Your task to perform on an android device: Is it going to rain this weekend? Image 0: 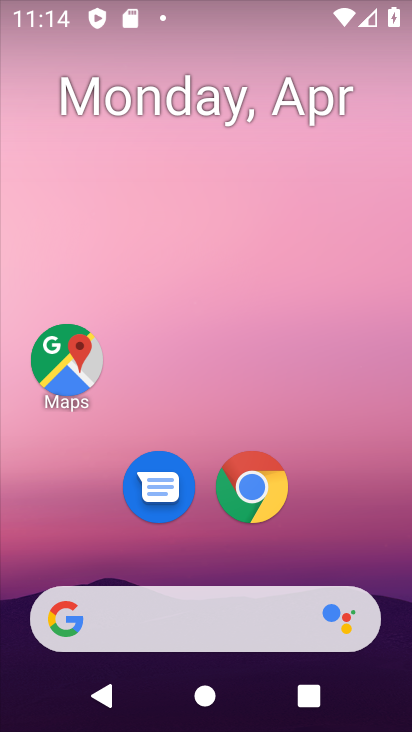
Step 0: drag from (395, 560) to (312, 122)
Your task to perform on an android device: Is it going to rain this weekend? Image 1: 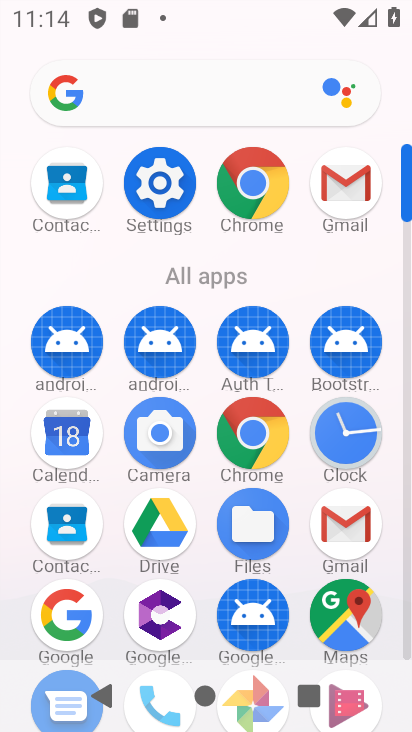
Step 1: click (250, 437)
Your task to perform on an android device: Is it going to rain this weekend? Image 2: 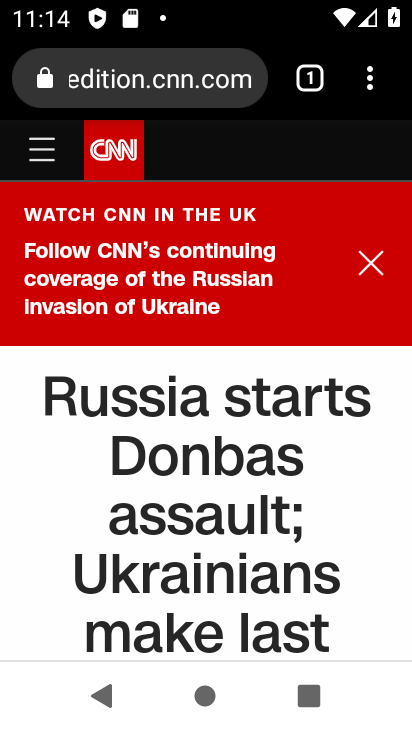
Step 2: click (247, 88)
Your task to perform on an android device: Is it going to rain this weekend? Image 3: 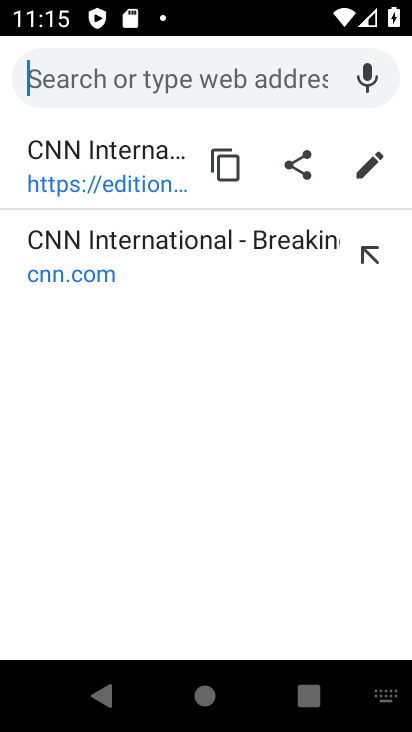
Step 3: type "Is it going to rain this weekend?"
Your task to perform on an android device: Is it going to rain this weekend? Image 4: 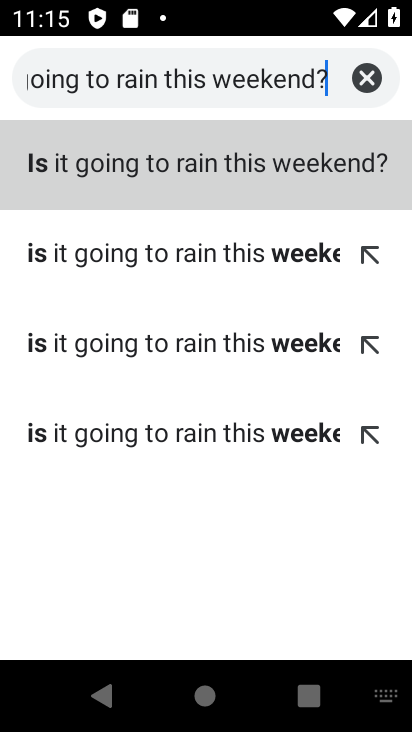
Step 4: click (332, 186)
Your task to perform on an android device: Is it going to rain this weekend? Image 5: 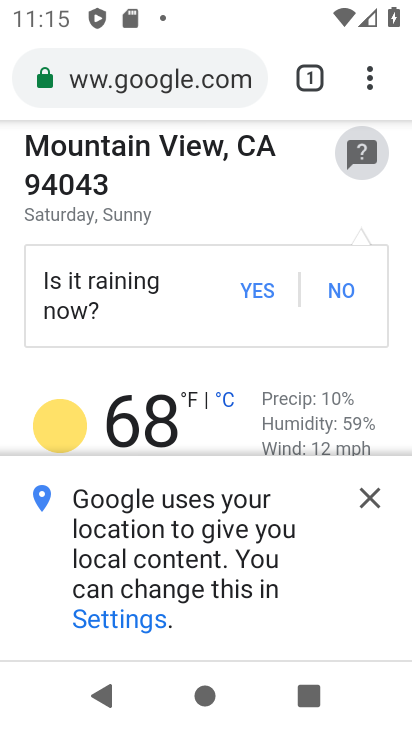
Step 5: task complete